Your task to perform on an android device: make emails show in primary in the gmail app Image 0: 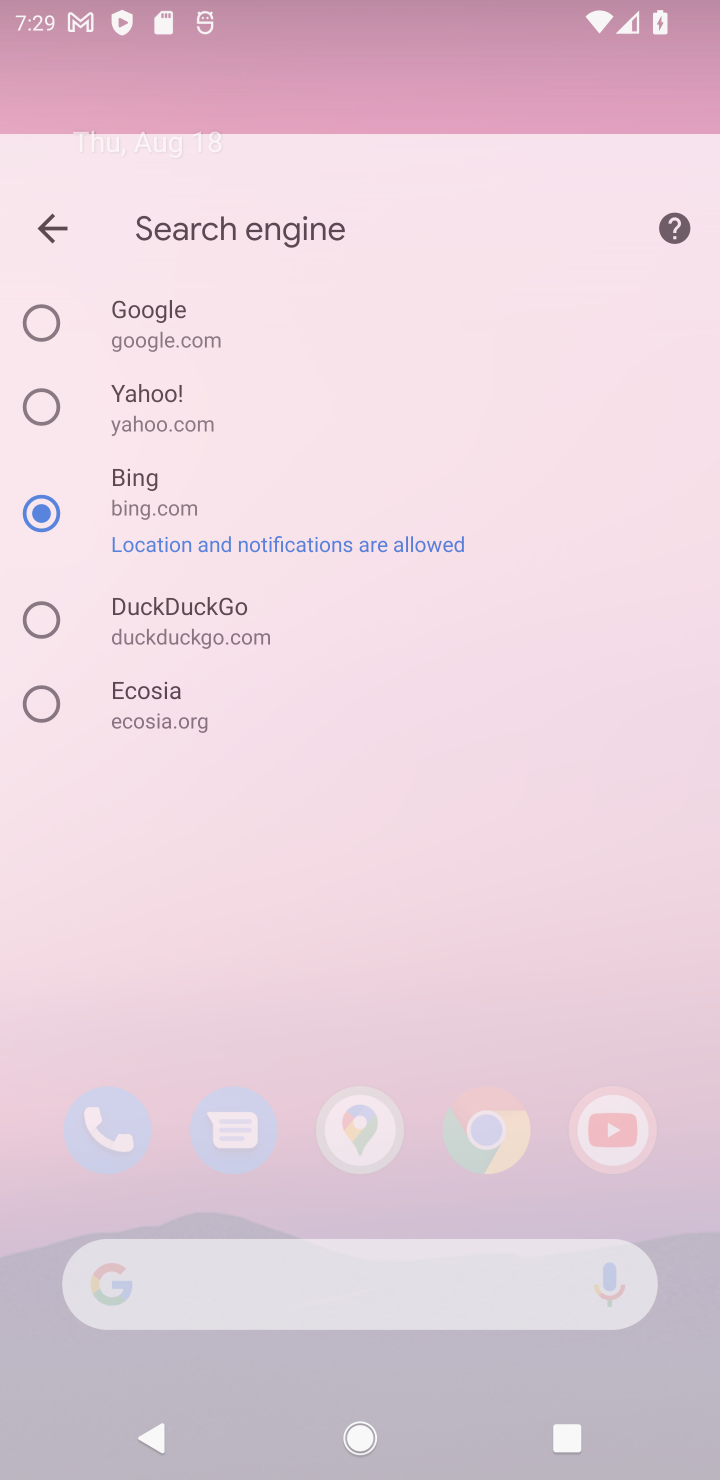
Step 0: press home button
Your task to perform on an android device: make emails show in primary in the gmail app Image 1: 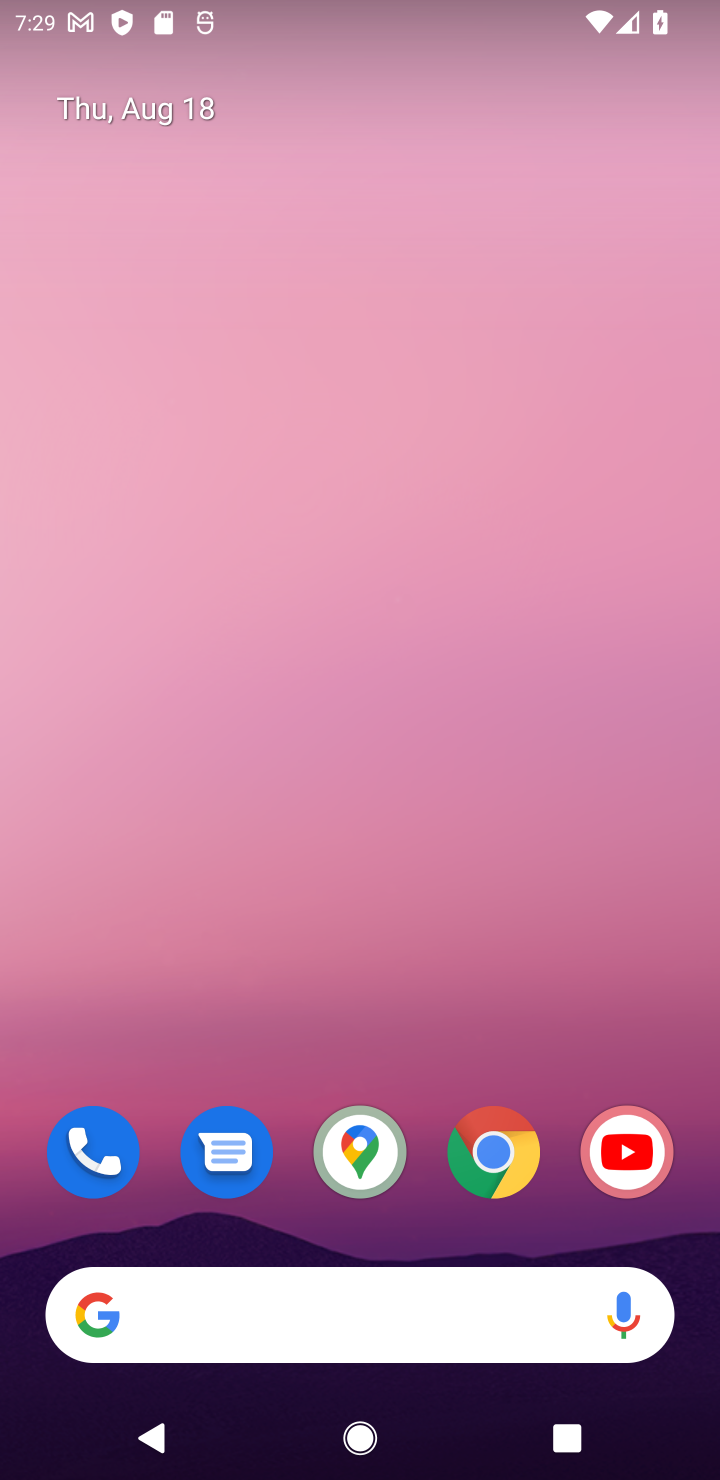
Step 1: drag from (510, 940) to (555, 0)
Your task to perform on an android device: make emails show in primary in the gmail app Image 2: 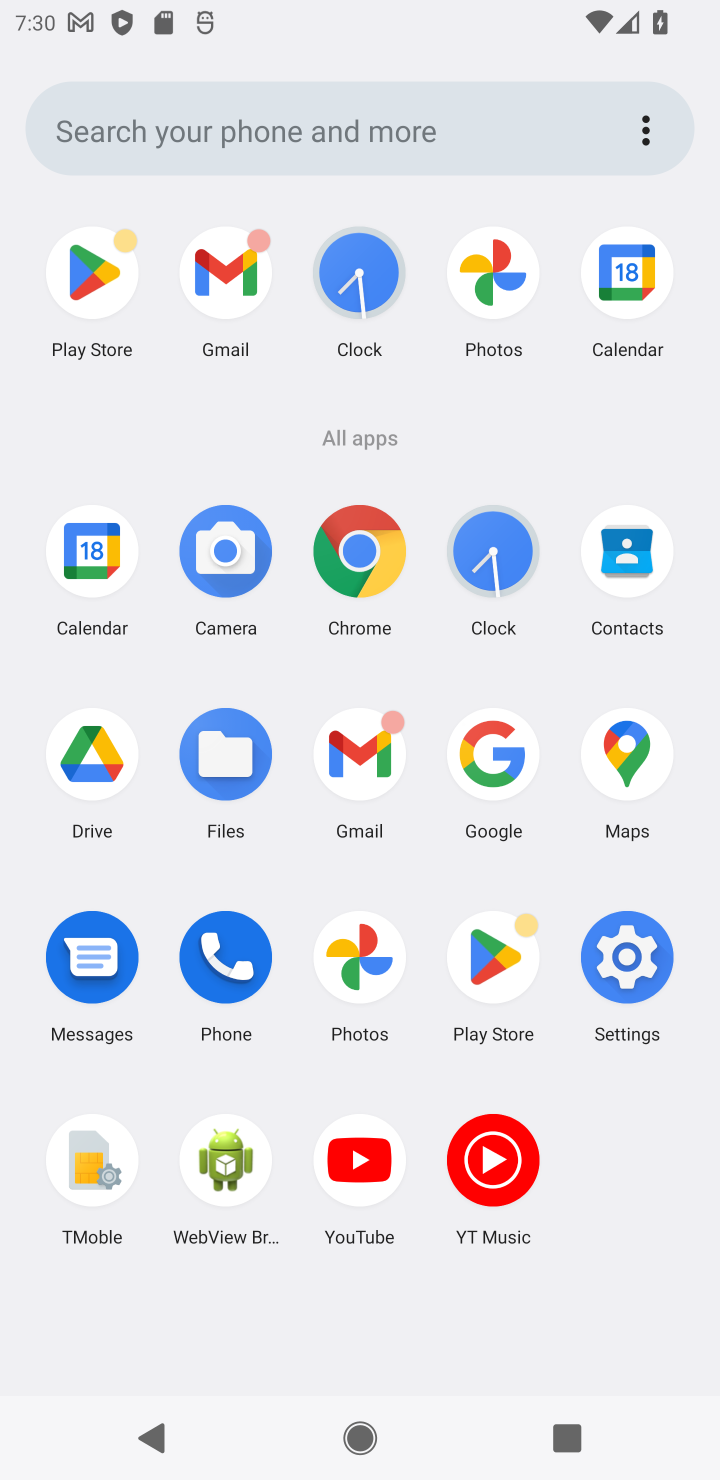
Step 2: click (229, 293)
Your task to perform on an android device: make emails show in primary in the gmail app Image 3: 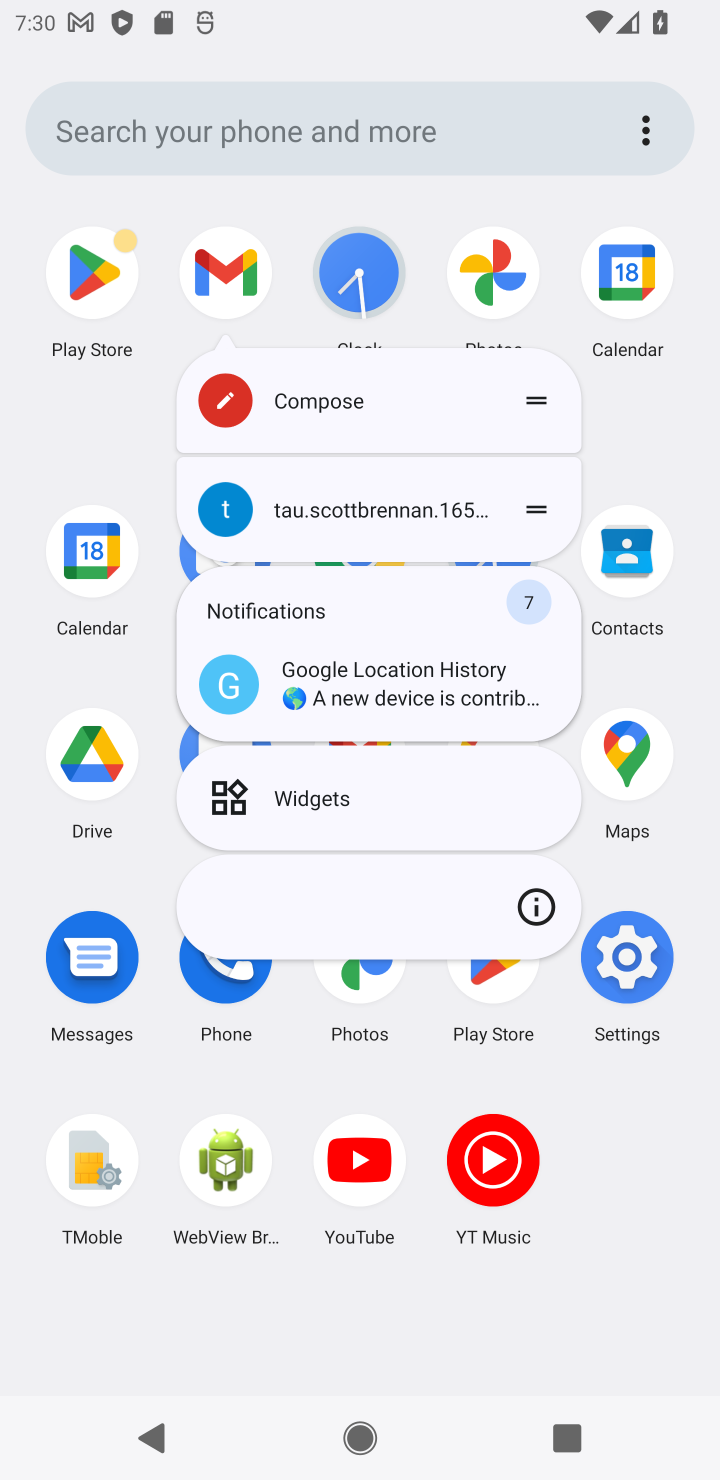
Step 3: click (229, 293)
Your task to perform on an android device: make emails show in primary in the gmail app Image 4: 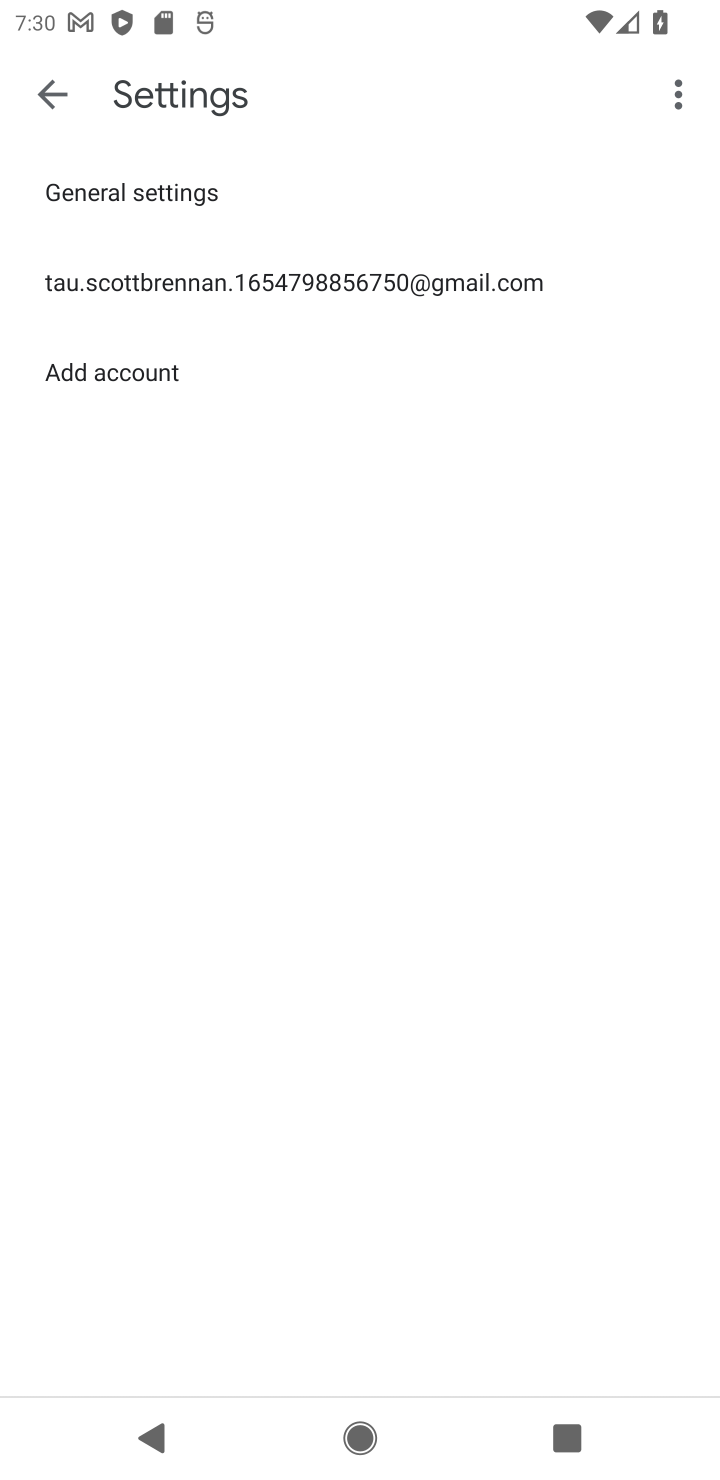
Step 4: click (221, 292)
Your task to perform on an android device: make emails show in primary in the gmail app Image 5: 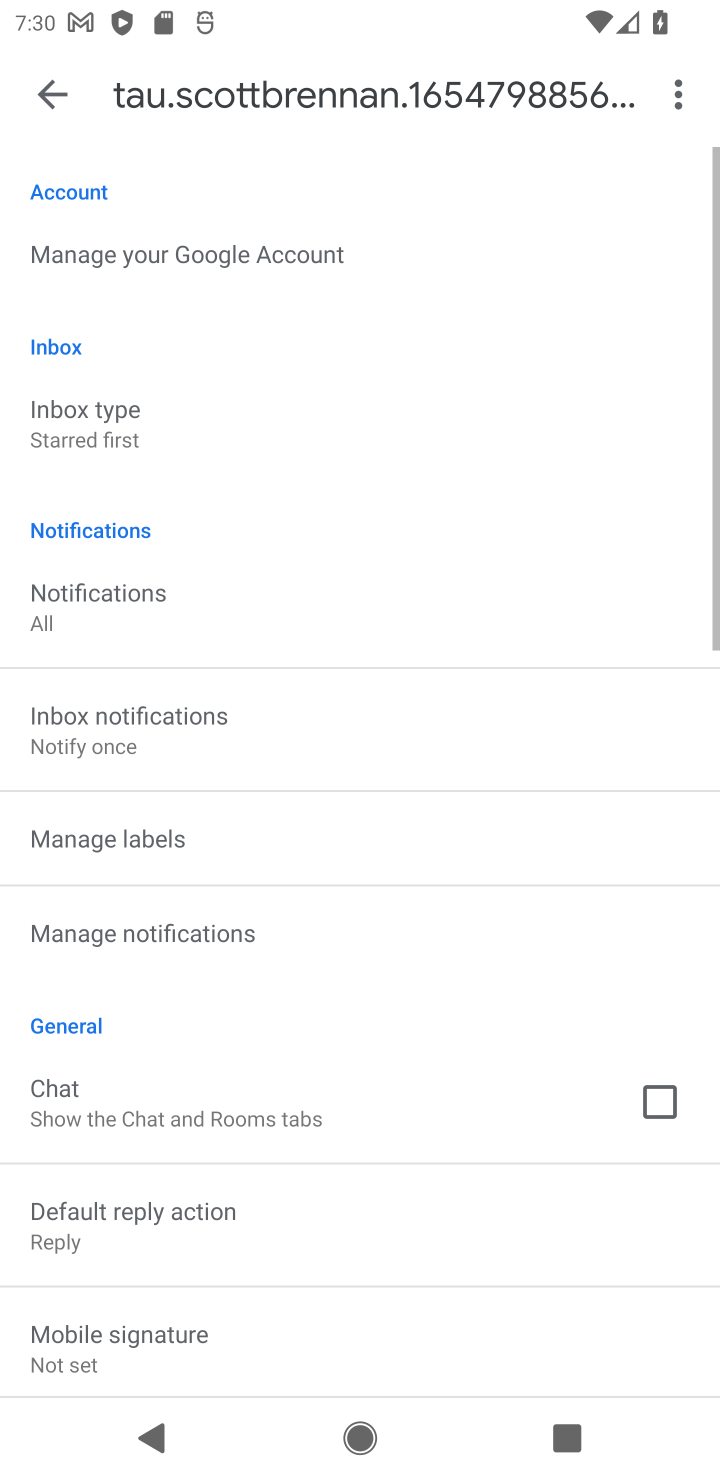
Step 5: task complete